Your task to perform on an android device: Go to sound settings Image 0: 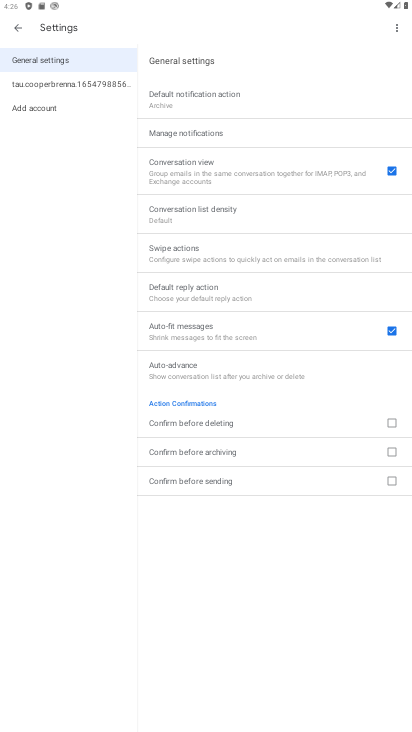
Step 0: press home button
Your task to perform on an android device: Go to sound settings Image 1: 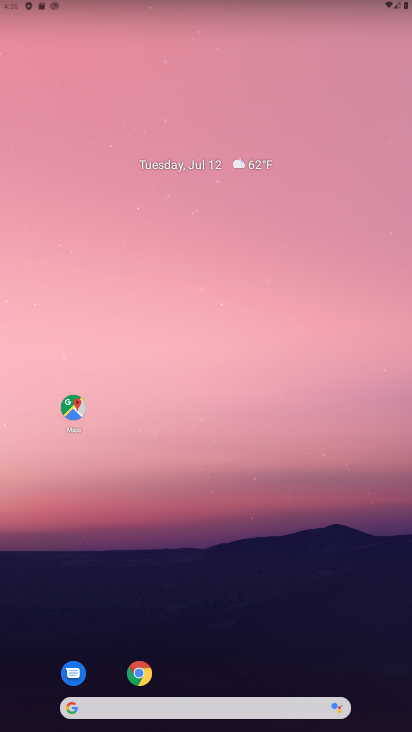
Step 1: drag from (191, 722) to (210, 259)
Your task to perform on an android device: Go to sound settings Image 2: 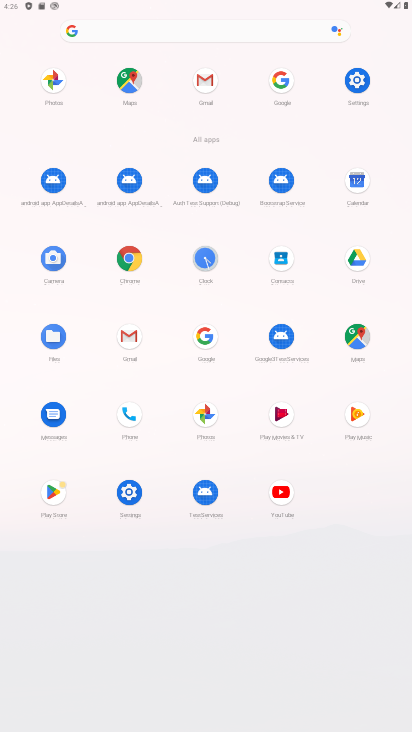
Step 2: click (364, 77)
Your task to perform on an android device: Go to sound settings Image 3: 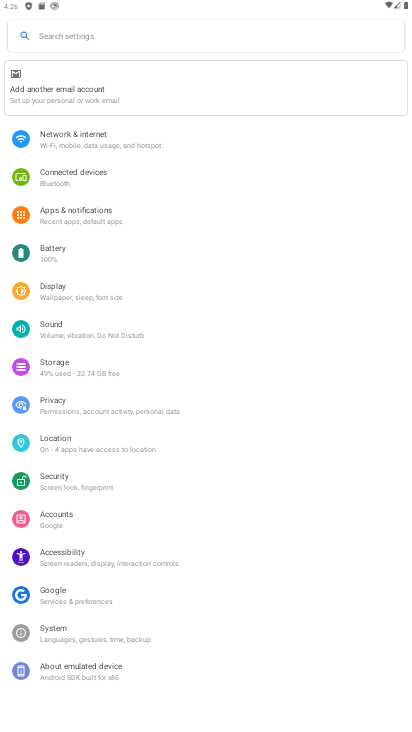
Step 3: click (55, 325)
Your task to perform on an android device: Go to sound settings Image 4: 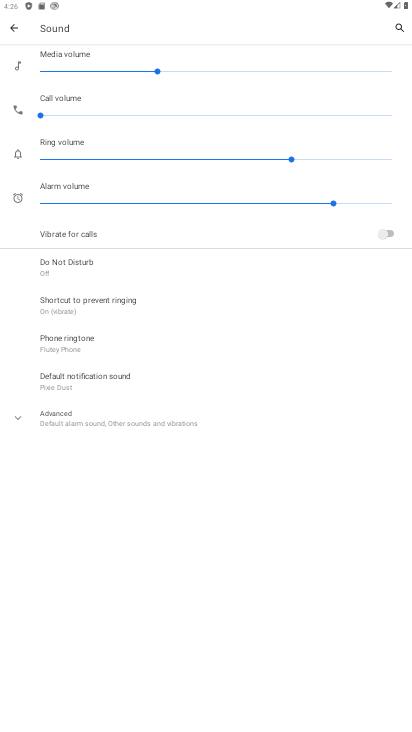
Step 4: task complete